Your task to perform on an android device: Go to notification settings Image 0: 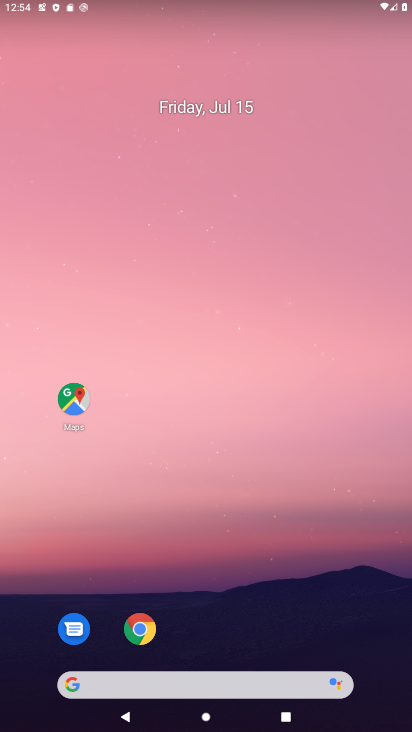
Step 0: drag from (190, 604) to (235, 177)
Your task to perform on an android device: Go to notification settings Image 1: 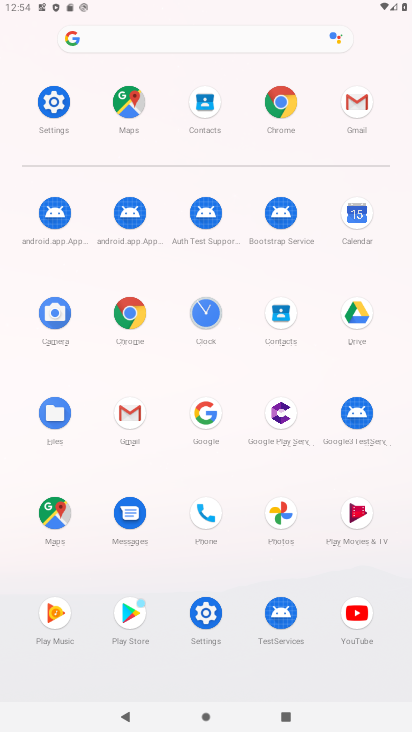
Step 1: click (57, 100)
Your task to perform on an android device: Go to notification settings Image 2: 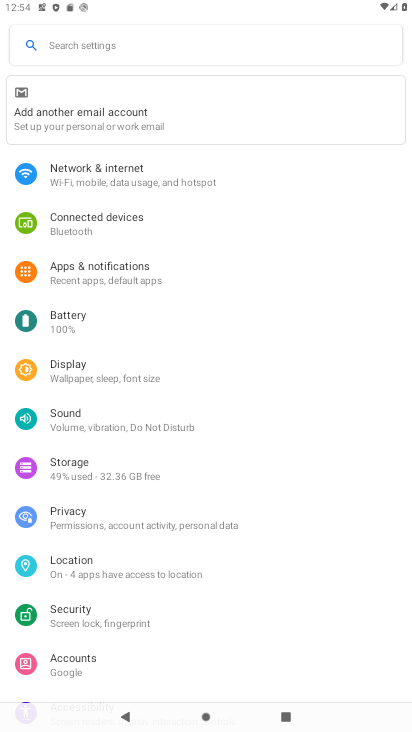
Step 2: click (103, 281)
Your task to perform on an android device: Go to notification settings Image 3: 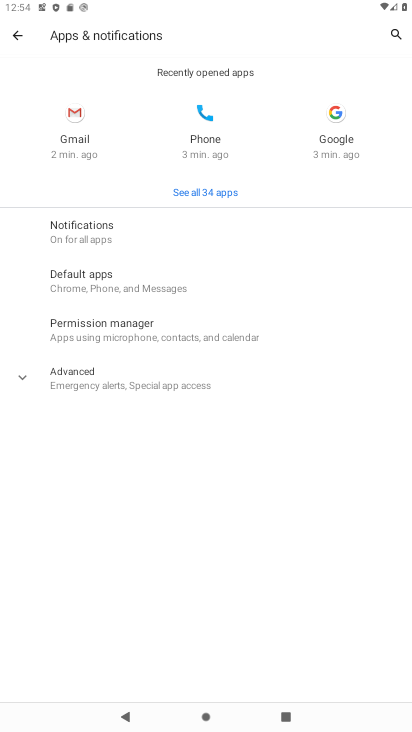
Step 3: click (84, 242)
Your task to perform on an android device: Go to notification settings Image 4: 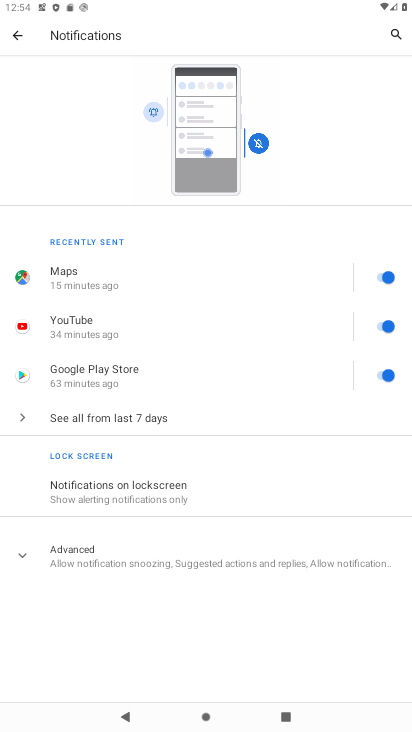
Step 4: task complete